Your task to perform on an android device: turn on bluetooth scan Image 0: 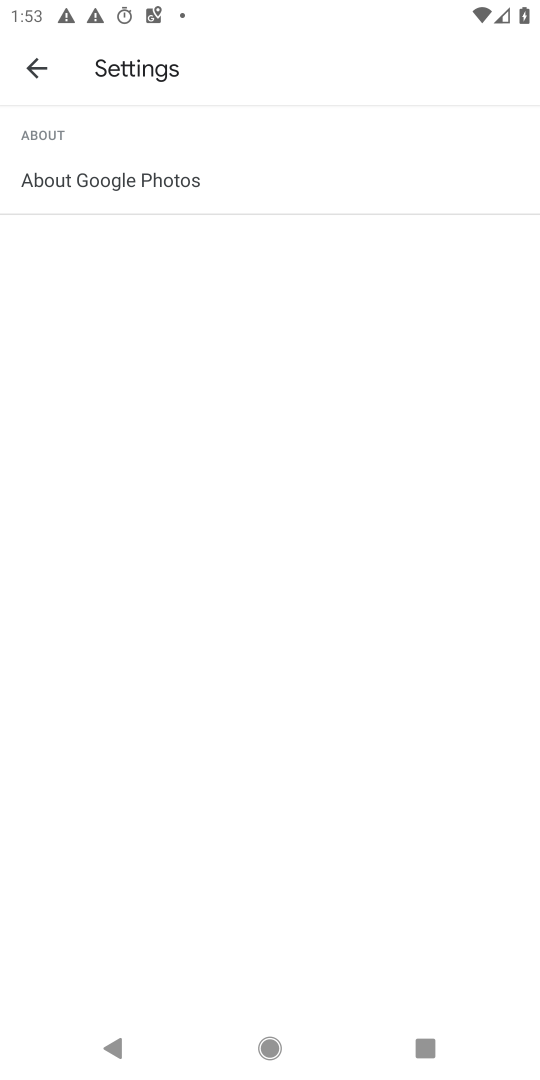
Step 0: press home button
Your task to perform on an android device: turn on bluetooth scan Image 1: 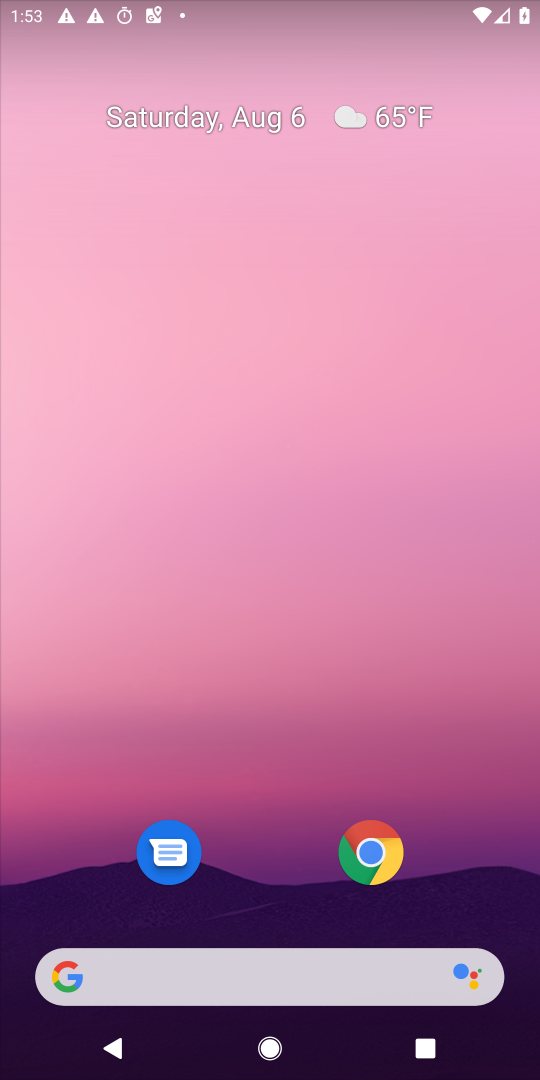
Step 1: drag from (279, 1010) to (360, 416)
Your task to perform on an android device: turn on bluetooth scan Image 2: 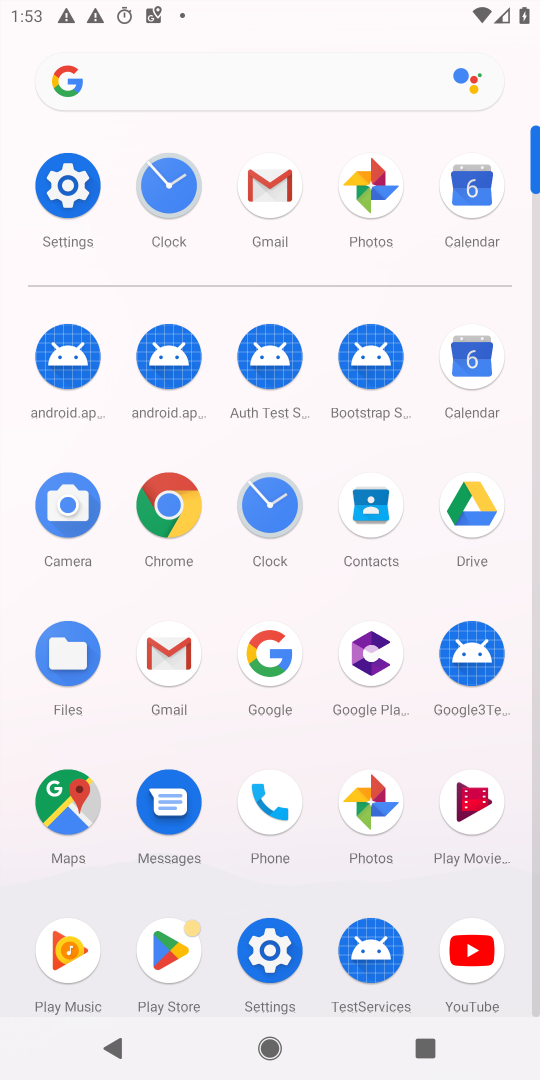
Step 2: click (80, 188)
Your task to perform on an android device: turn on bluetooth scan Image 3: 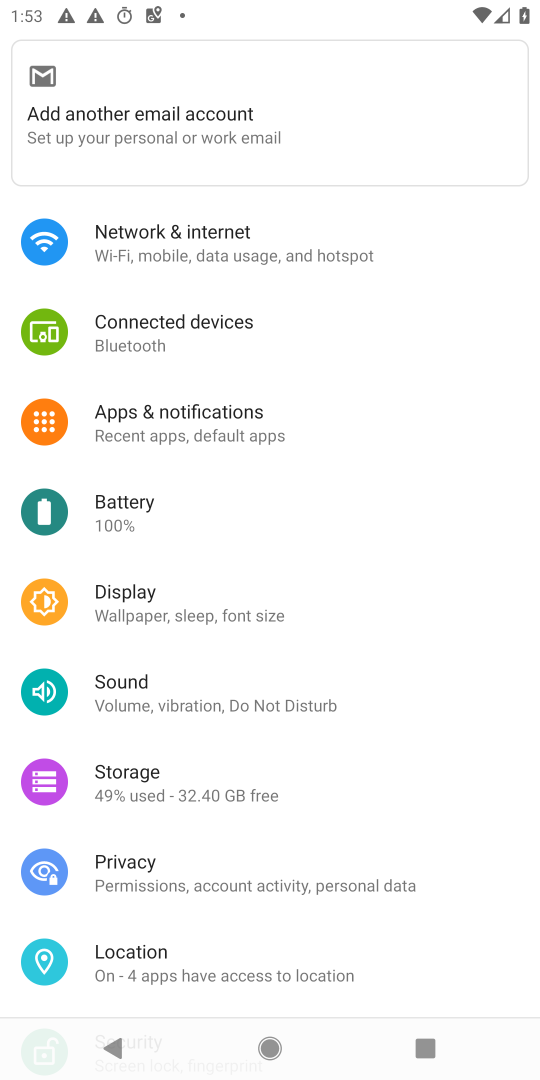
Step 3: click (143, 944)
Your task to perform on an android device: turn on bluetooth scan Image 4: 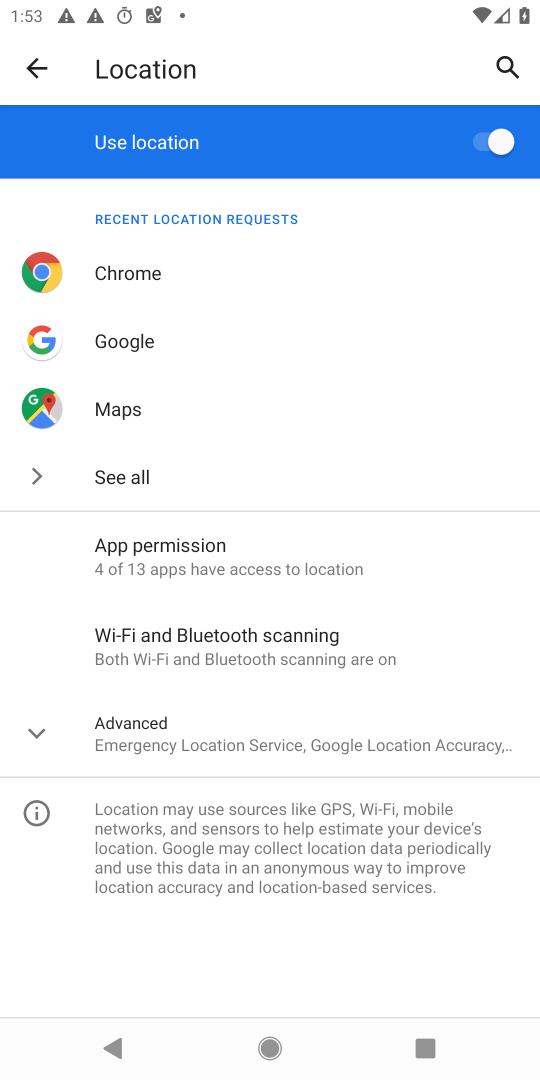
Step 4: click (275, 652)
Your task to perform on an android device: turn on bluetooth scan Image 5: 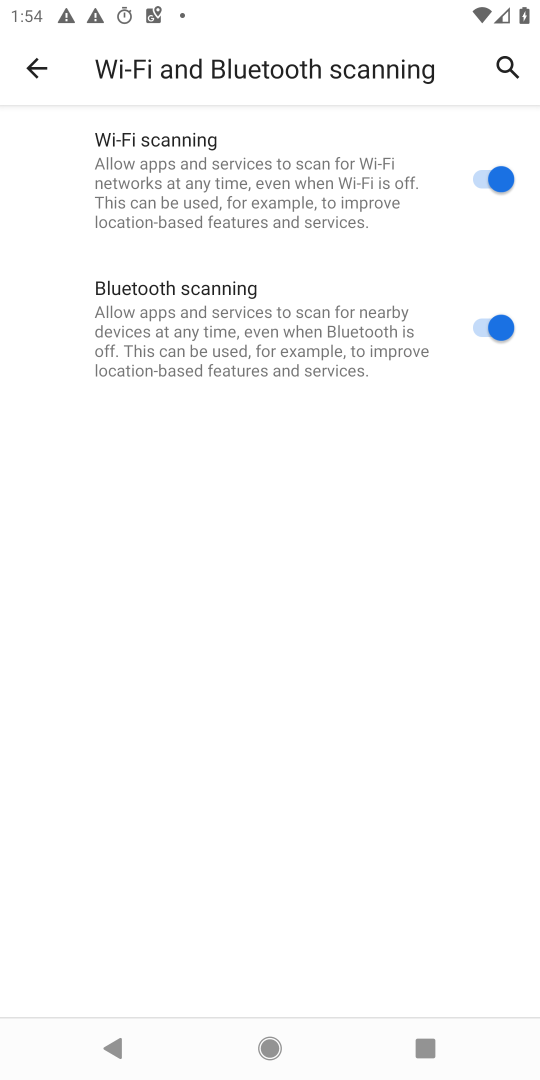
Step 5: click (480, 320)
Your task to perform on an android device: turn on bluetooth scan Image 6: 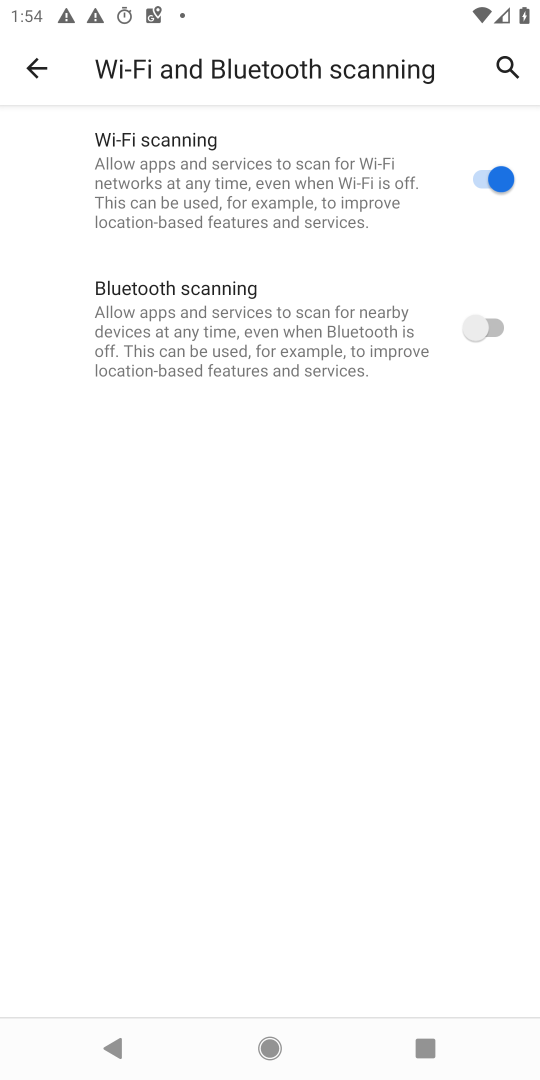
Step 6: click (480, 320)
Your task to perform on an android device: turn on bluetooth scan Image 7: 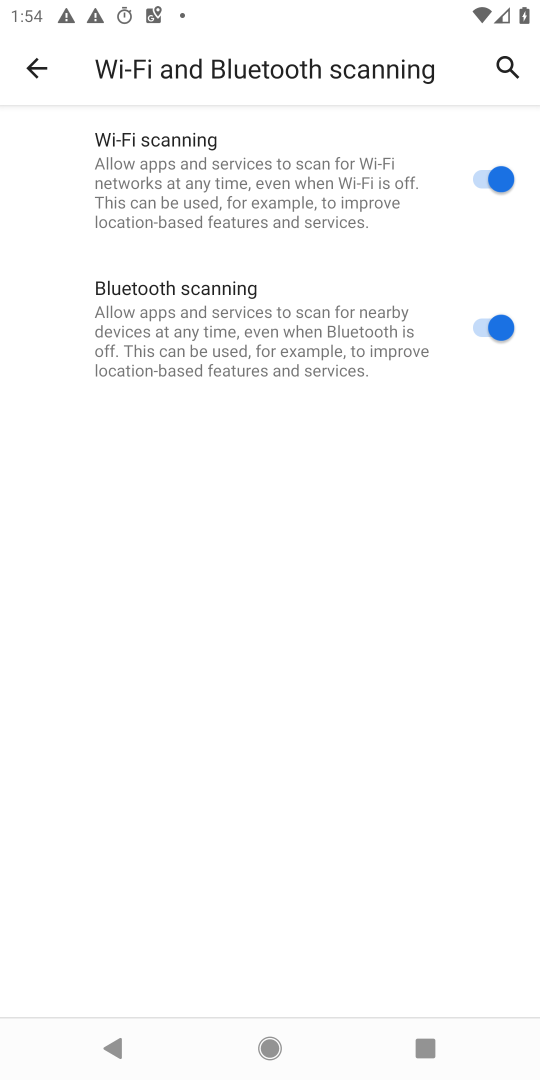
Step 7: task complete